Your task to perform on an android device: Go to settings Image 0: 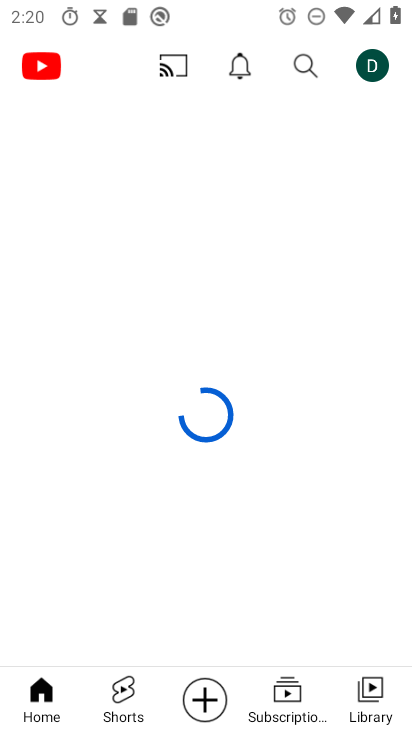
Step 0: press home button
Your task to perform on an android device: Go to settings Image 1: 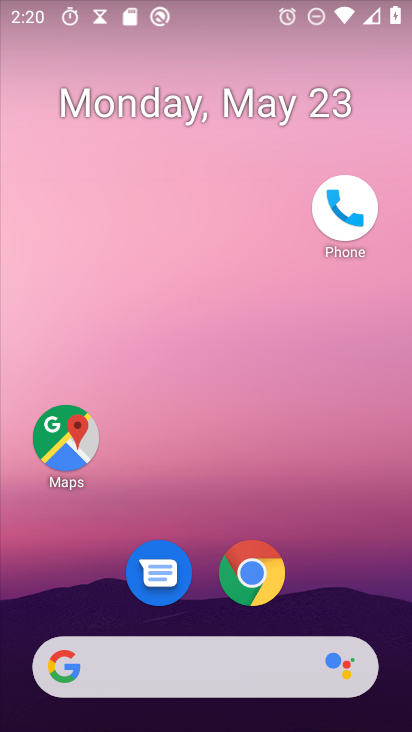
Step 1: drag from (206, 638) to (337, 130)
Your task to perform on an android device: Go to settings Image 2: 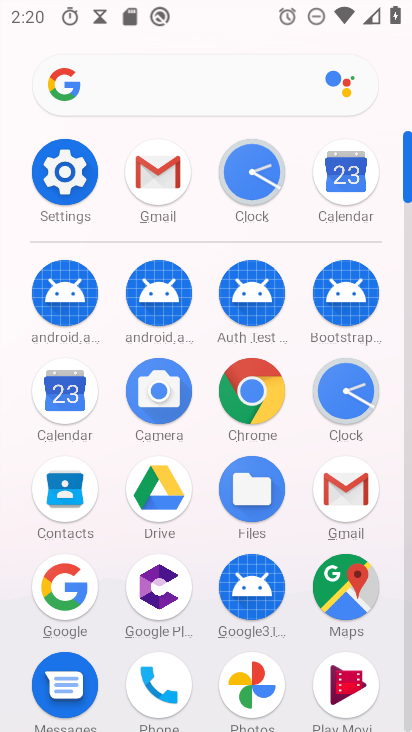
Step 2: click (71, 186)
Your task to perform on an android device: Go to settings Image 3: 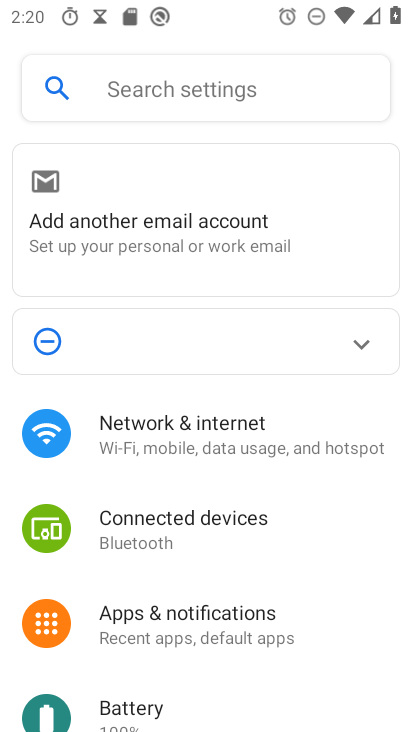
Step 3: task complete